Your task to perform on an android device: delete browsing data in the chrome app Image 0: 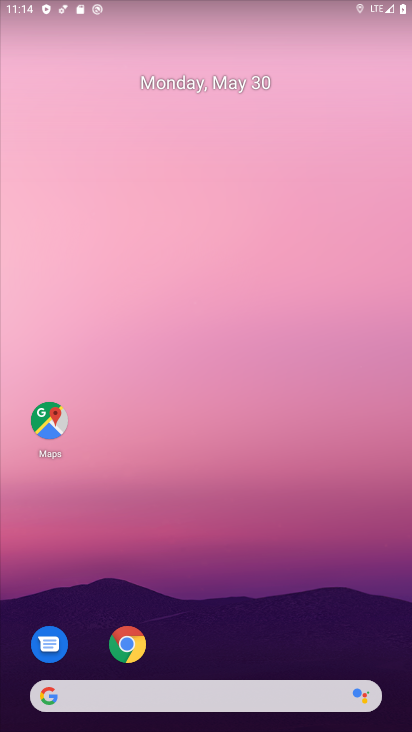
Step 0: drag from (324, 667) to (355, 731)
Your task to perform on an android device: delete browsing data in the chrome app Image 1: 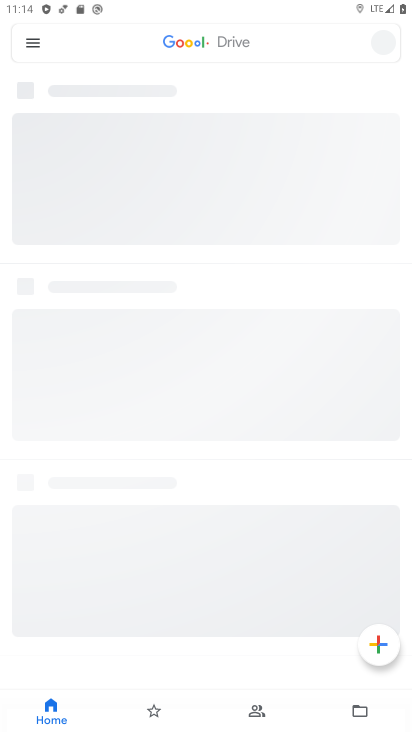
Step 1: press home button
Your task to perform on an android device: delete browsing data in the chrome app Image 2: 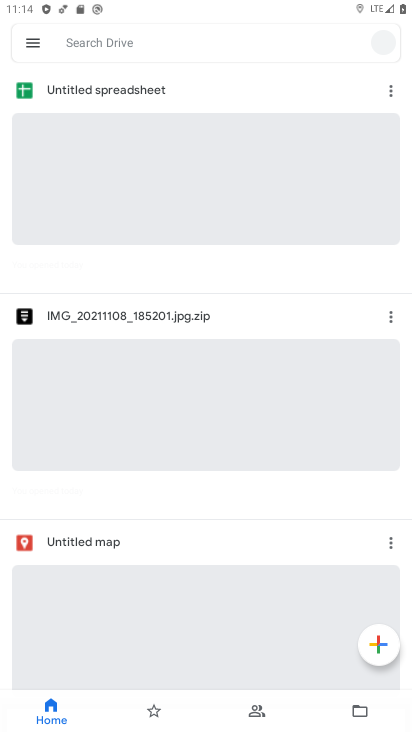
Step 2: click (367, 572)
Your task to perform on an android device: delete browsing data in the chrome app Image 3: 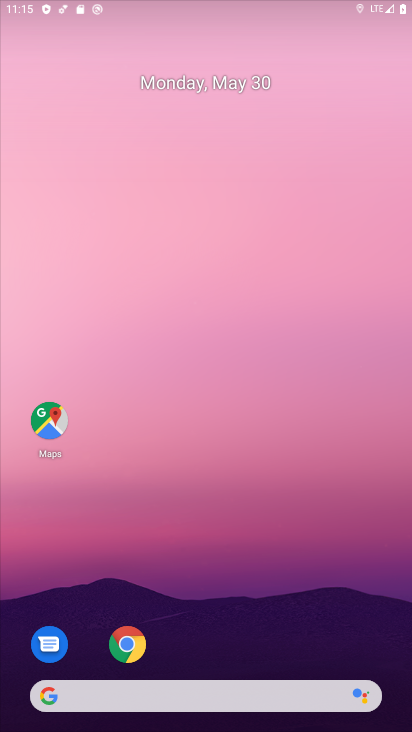
Step 3: click (142, 642)
Your task to perform on an android device: delete browsing data in the chrome app Image 4: 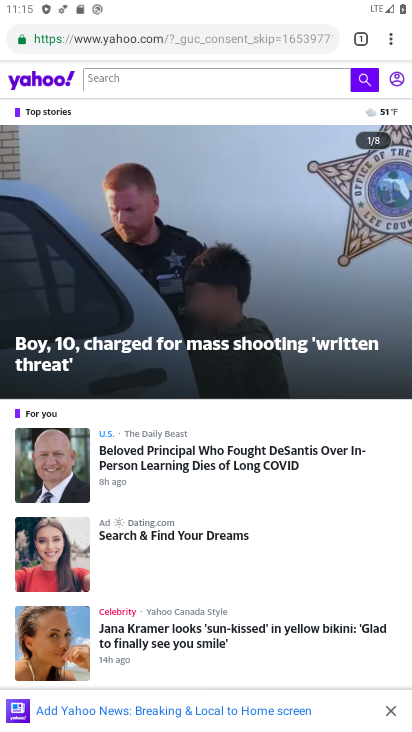
Step 4: click (383, 33)
Your task to perform on an android device: delete browsing data in the chrome app Image 5: 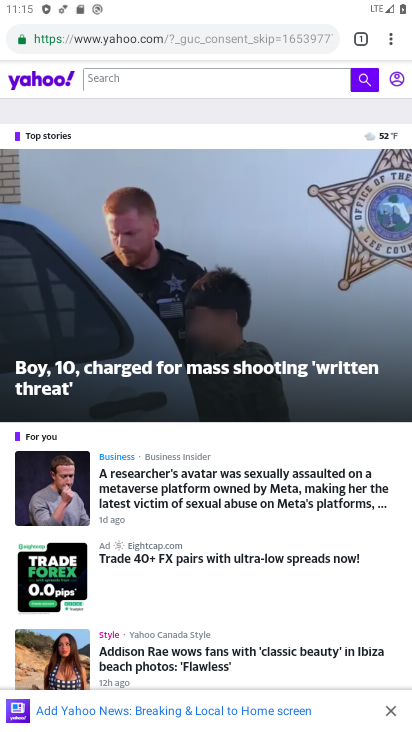
Step 5: drag from (383, 33) to (295, 472)
Your task to perform on an android device: delete browsing data in the chrome app Image 6: 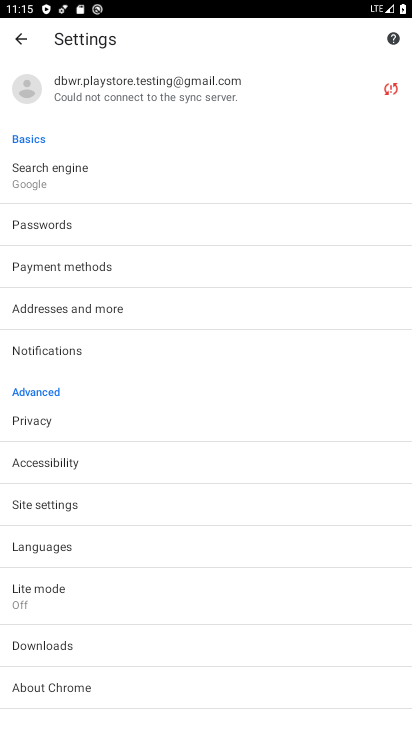
Step 6: click (11, 424)
Your task to perform on an android device: delete browsing data in the chrome app Image 7: 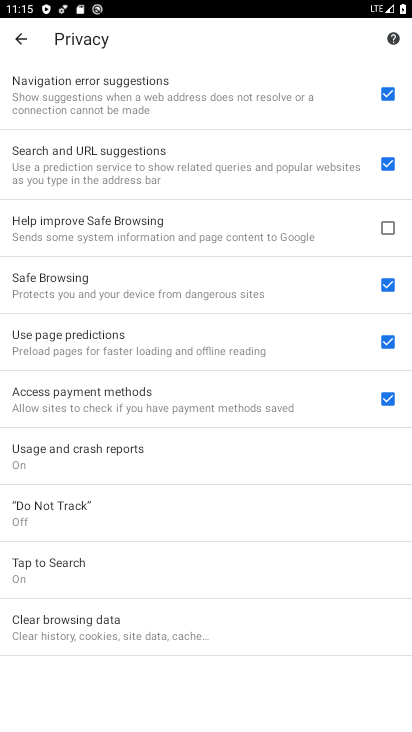
Step 7: click (87, 640)
Your task to perform on an android device: delete browsing data in the chrome app Image 8: 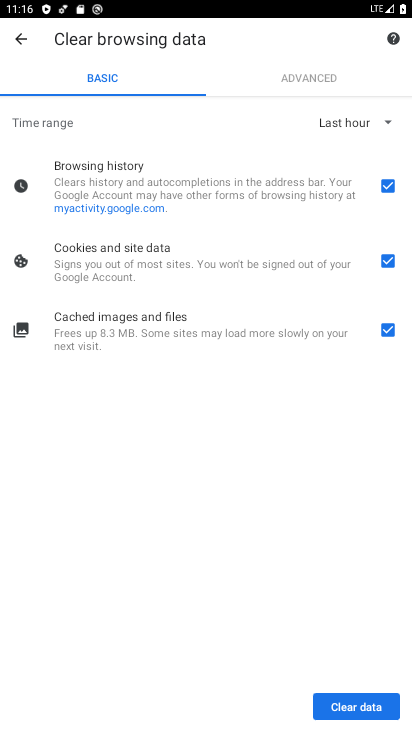
Step 8: click (369, 710)
Your task to perform on an android device: delete browsing data in the chrome app Image 9: 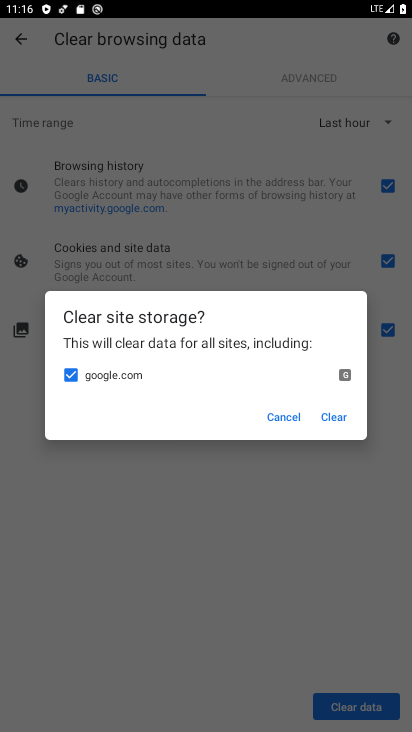
Step 9: click (336, 418)
Your task to perform on an android device: delete browsing data in the chrome app Image 10: 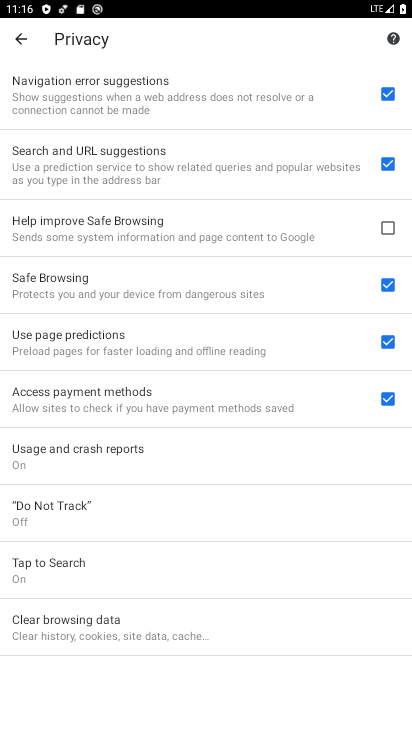
Step 10: task complete